Your task to perform on an android device: turn off location Image 0: 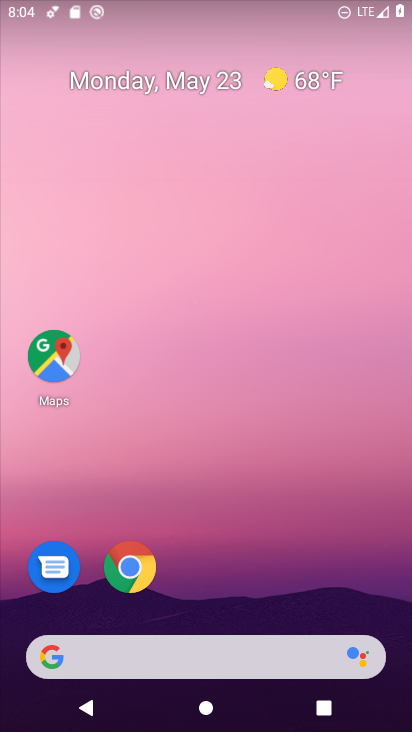
Step 0: drag from (194, 569) to (400, 141)
Your task to perform on an android device: turn off location Image 1: 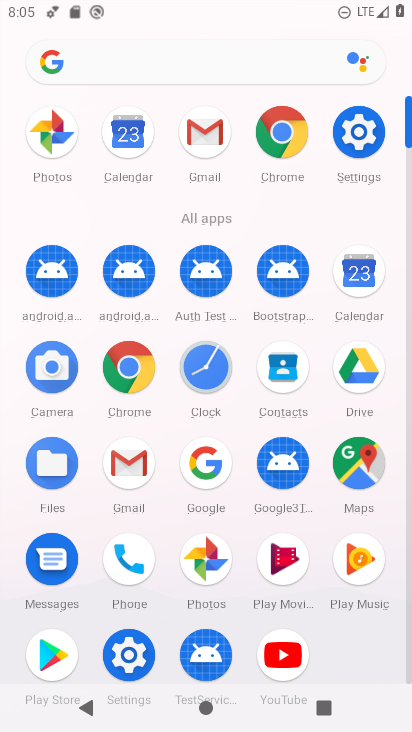
Step 1: click (364, 114)
Your task to perform on an android device: turn off location Image 2: 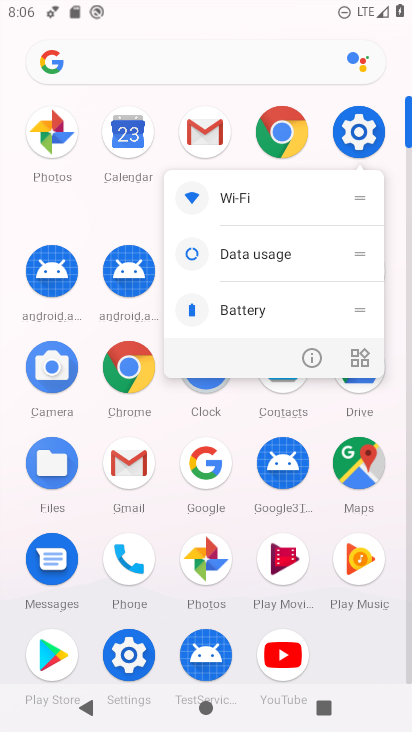
Step 2: click (316, 360)
Your task to perform on an android device: turn off location Image 3: 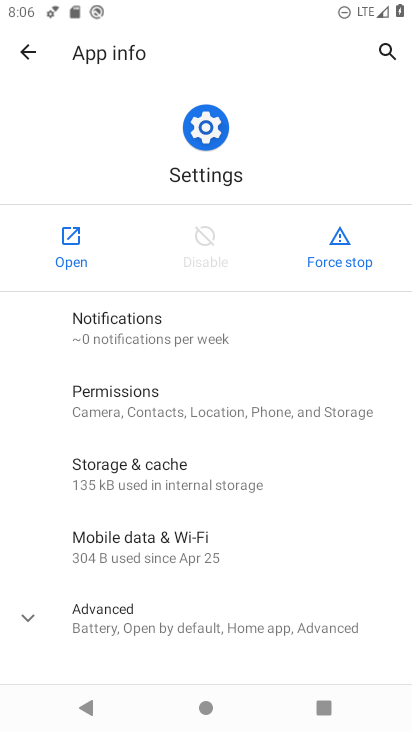
Step 3: click (71, 249)
Your task to perform on an android device: turn off location Image 4: 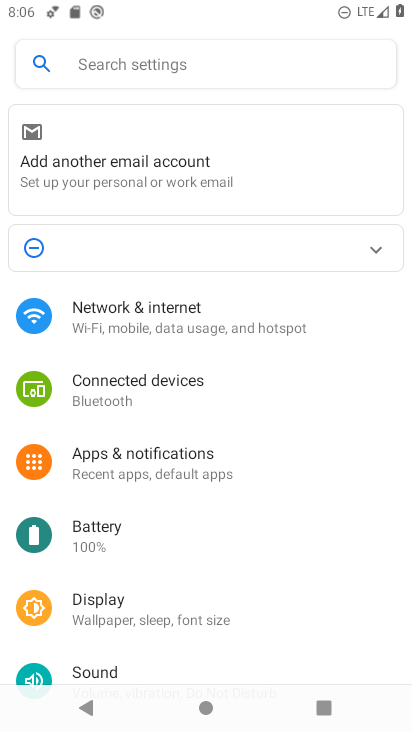
Step 4: drag from (190, 511) to (252, 233)
Your task to perform on an android device: turn off location Image 5: 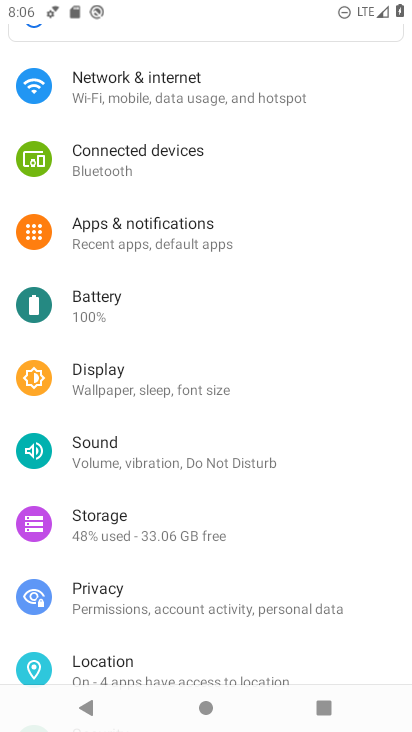
Step 5: click (114, 682)
Your task to perform on an android device: turn off location Image 6: 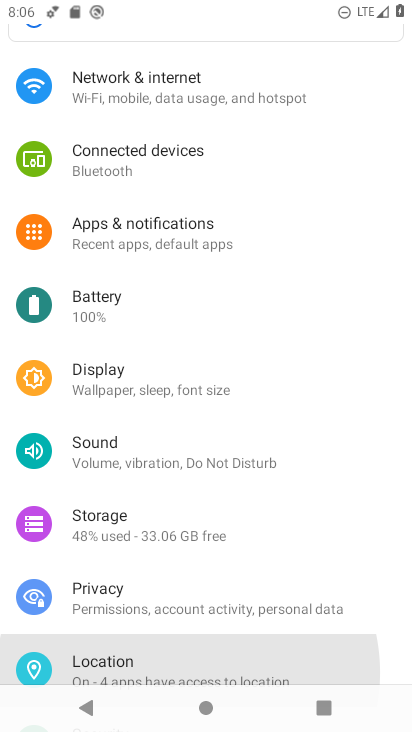
Step 6: click (115, 679)
Your task to perform on an android device: turn off location Image 7: 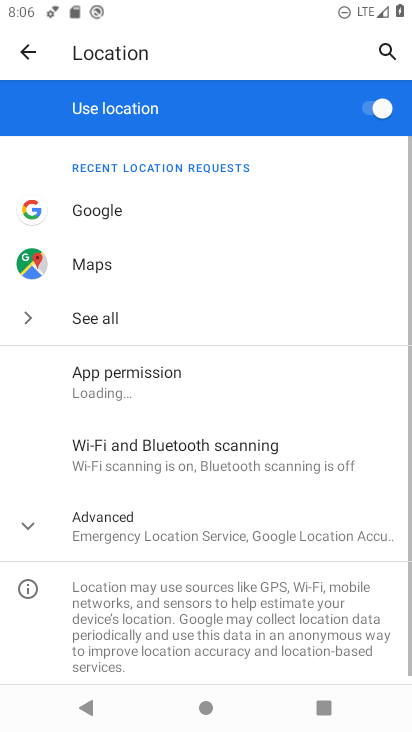
Step 7: drag from (211, 568) to (338, 138)
Your task to perform on an android device: turn off location Image 8: 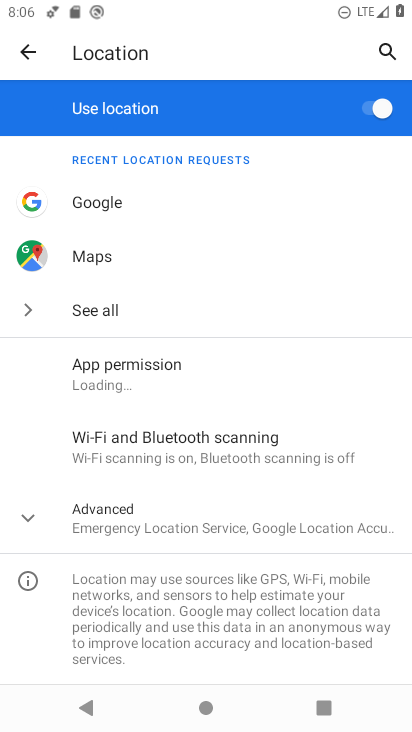
Step 8: click (375, 108)
Your task to perform on an android device: turn off location Image 9: 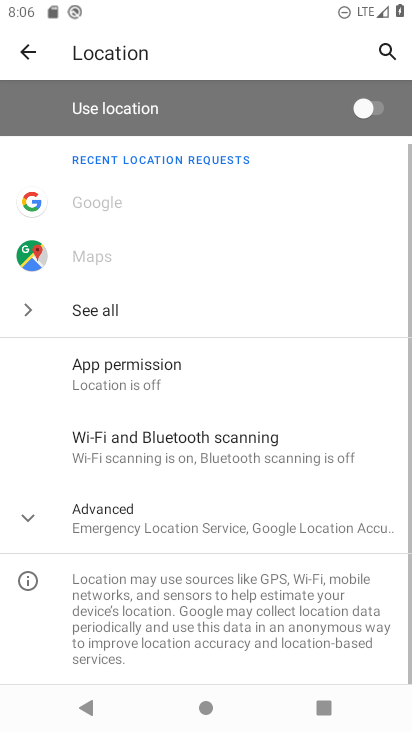
Step 9: task complete